Your task to perform on an android device: Go to Amazon Image 0: 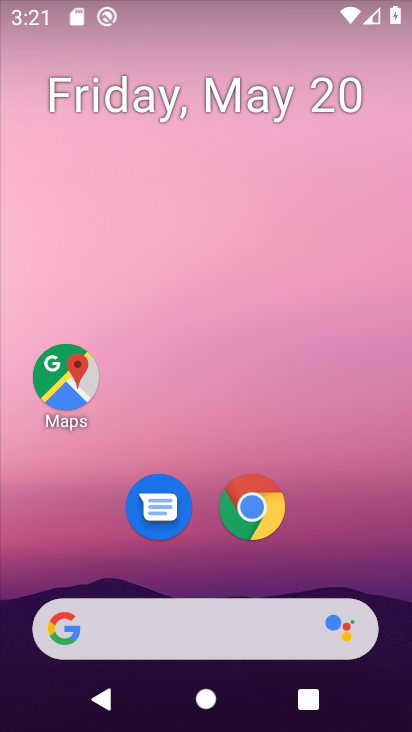
Step 0: click (253, 509)
Your task to perform on an android device: Go to Amazon Image 1: 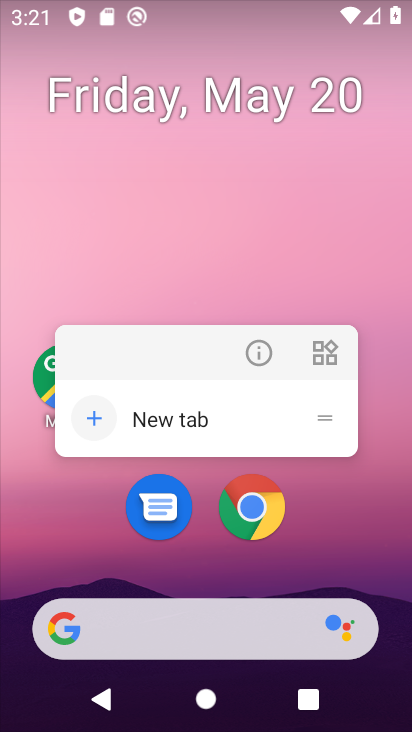
Step 1: click (250, 505)
Your task to perform on an android device: Go to Amazon Image 2: 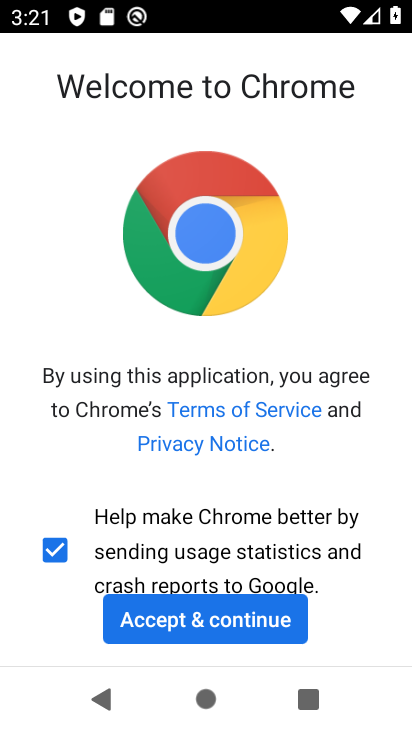
Step 2: click (197, 616)
Your task to perform on an android device: Go to Amazon Image 3: 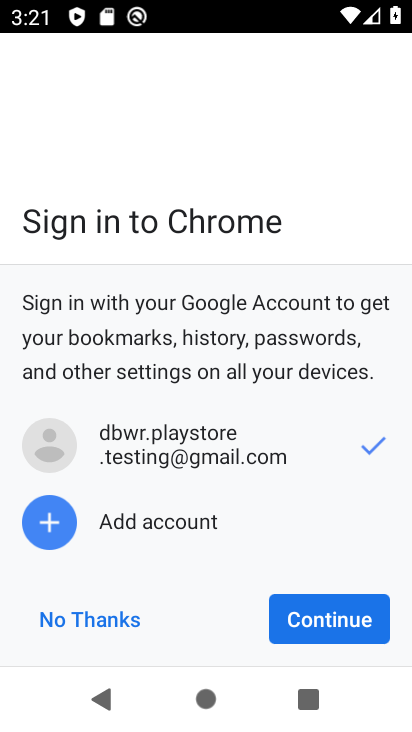
Step 3: click (317, 626)
Your task to perform on an android device: Go to Amazon Image 4: 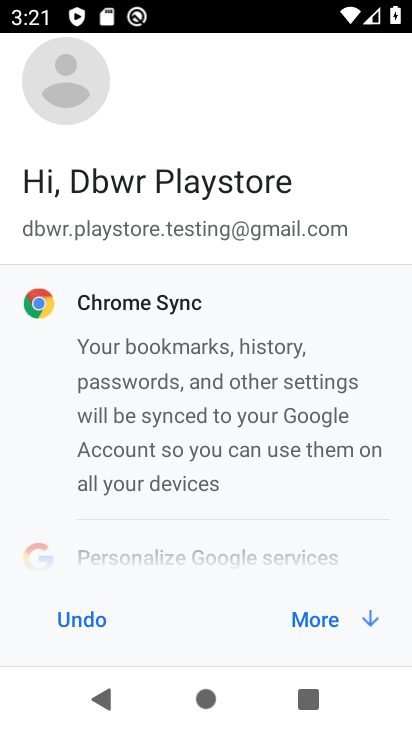
Step 4: click (317, 626)
Your task to perform on an android device: Go to Amazon Image 5: 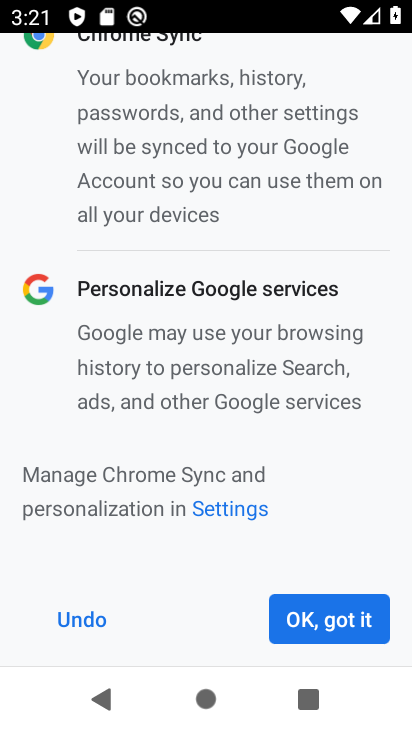
Step 5: click (317, 626)
Your task to perform on an android device: Go to Amazon Image 6: 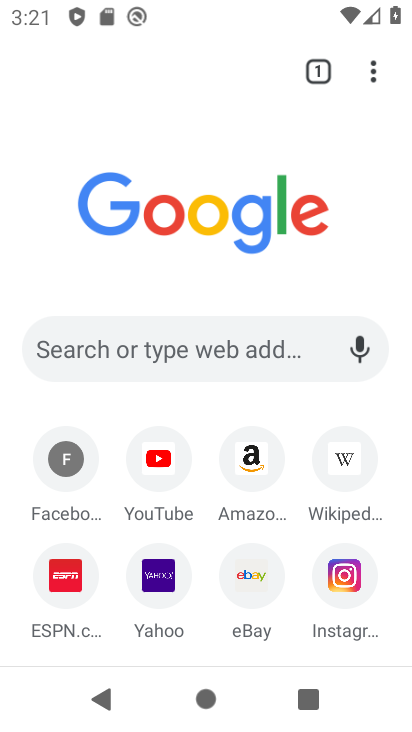
Step 6: click (207, 346)
Your task to perform on an android device: Go to Amazon Image 7: 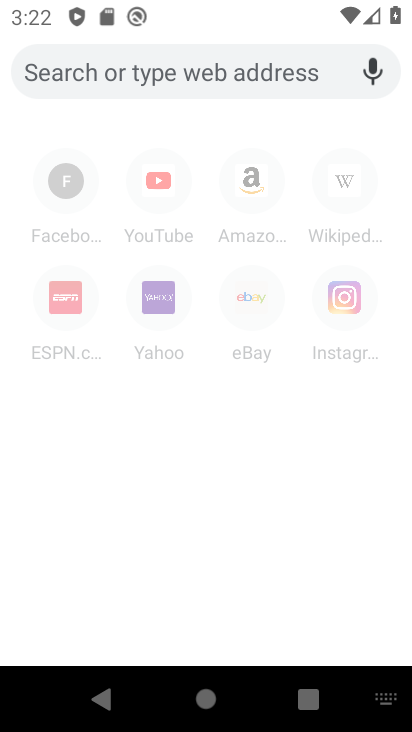
Step 7: type "Amazon"
Your task to perform on an android device: Go to Amazon Image 8: 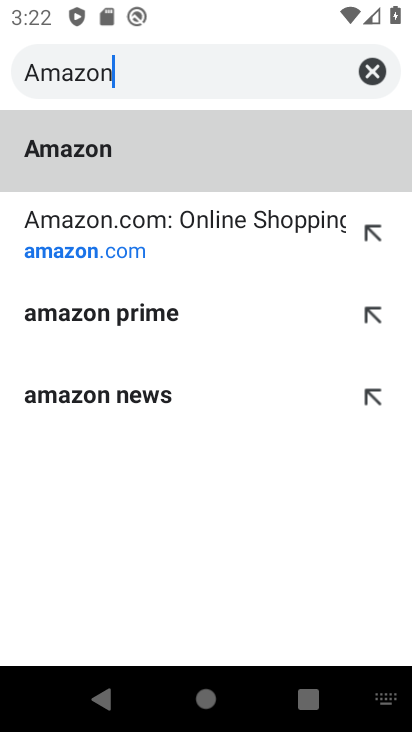
Step 8: type ""
Your task to perform on an android device: Go to Amazon Image 9: 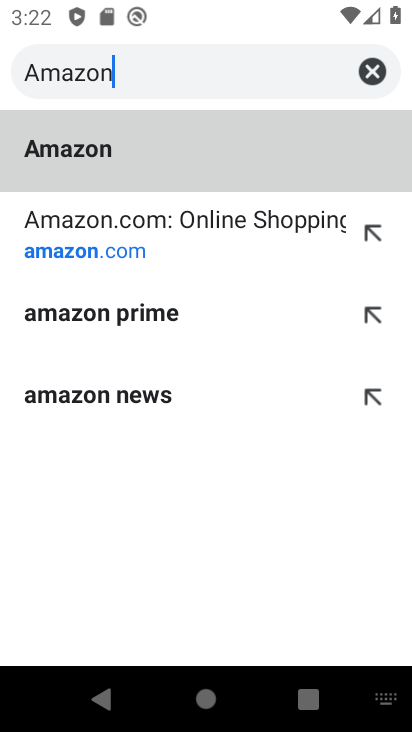
Step 9: click (83, 138)
Your task to perform on an android device: Go to Amazon Image 10: 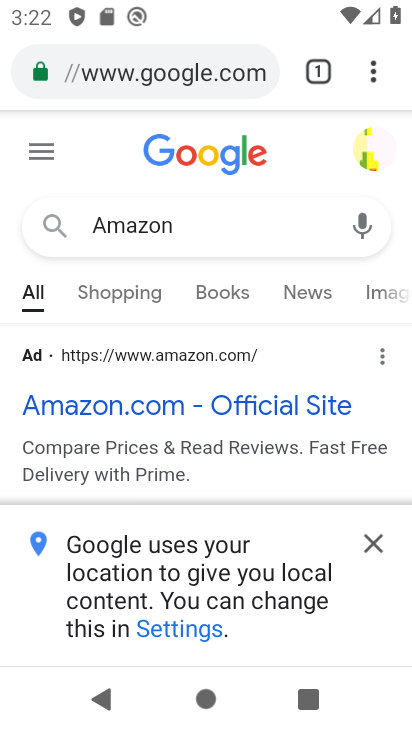
Step 10: click (98, 414)
Your task to perform on an android device: Go to Amazon Image 11: 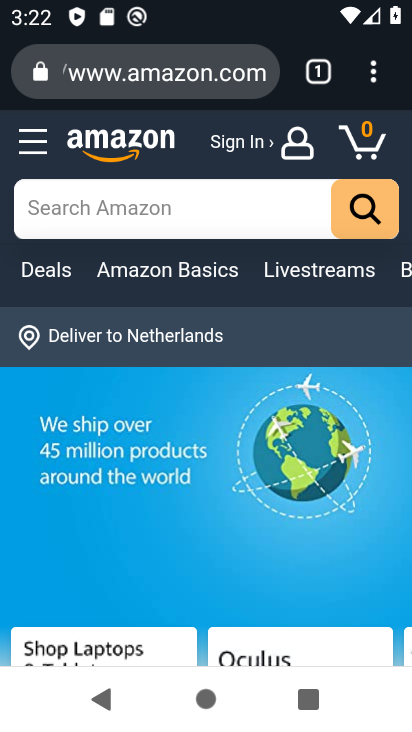
Step 11: task complete